Your task to perform on an android device: search for starred emails in the gmail app Image 0: 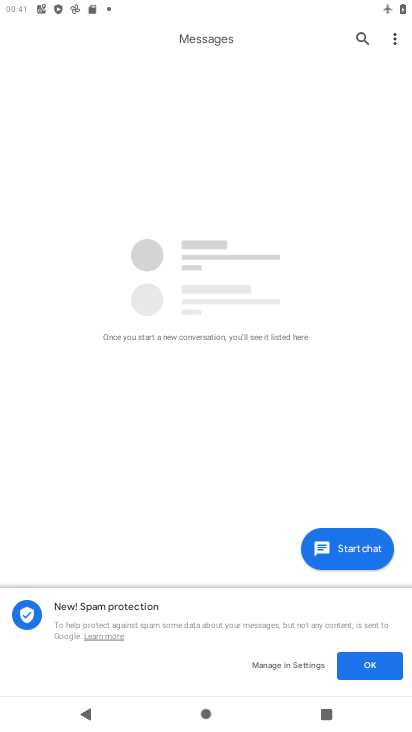
Step 0: click (226, 566)
Your task to perform on an android device: search for starred emails in the gmail app Image 1: 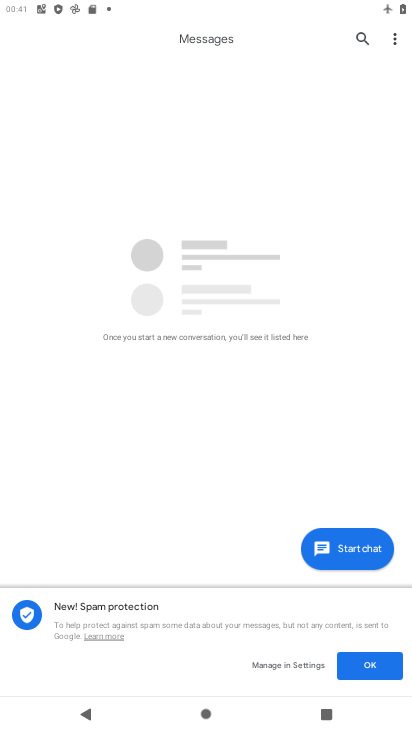
Step 1: press home button
Your task to perform on an android device: search for starred emails in the gmail app Image 2: 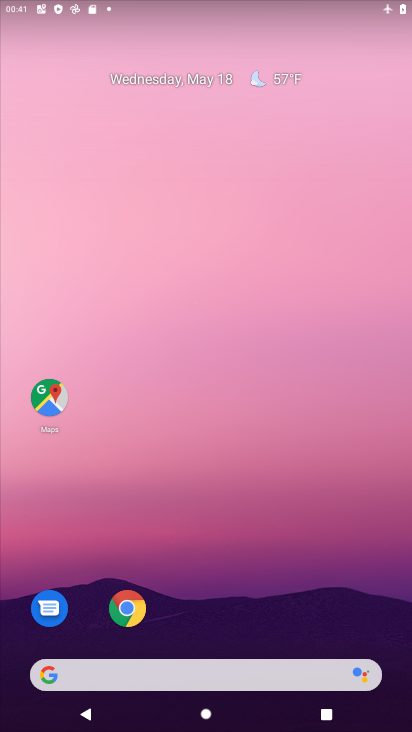
Step 2: drag from (251, 542) to (141, 134)
Your task to perform on an android device: search for starred emails in the gmail app Image 3: 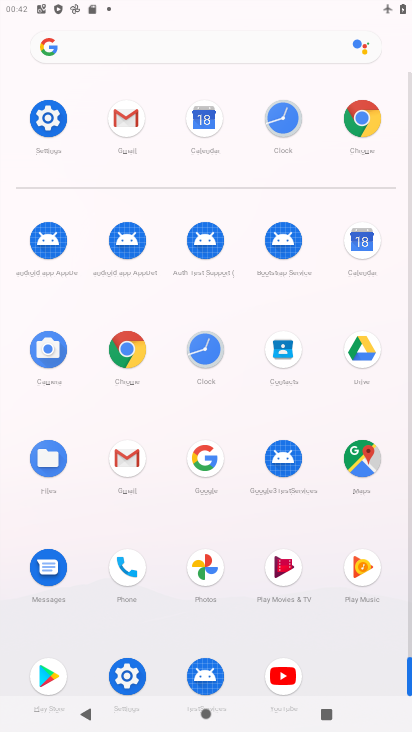
Step 3: click (119, 452)
Your task to perform on an android device: search for starred emails in the gmail app Image 4: 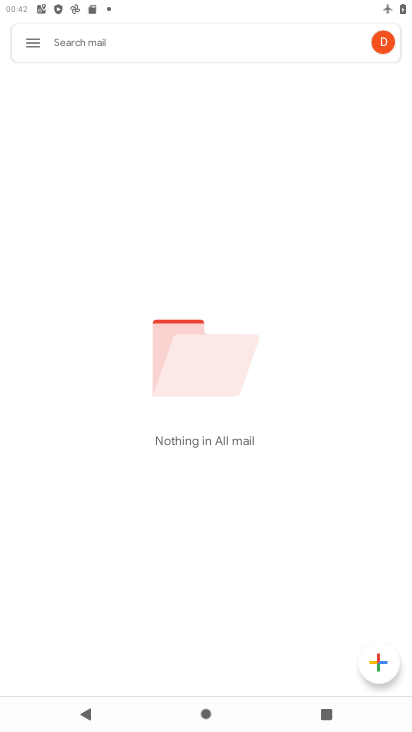
Step 4: click (32, 49)
Your task to perform on an android device: search for starred emails in the gmail app Image 5: 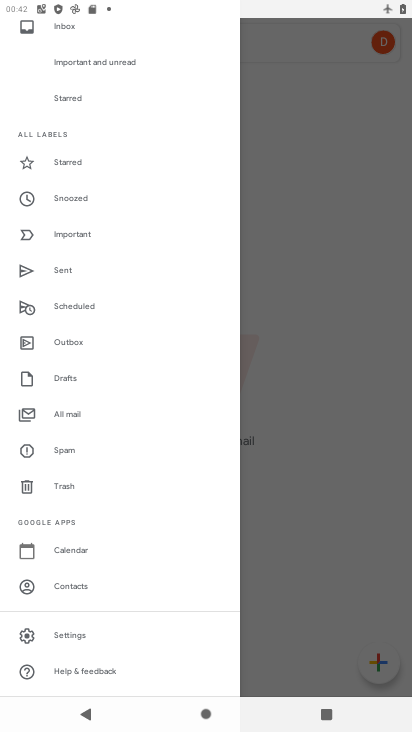
Step 5: click (101, 274)
Your task to perform on an android device: search for starred emails in the gmail app Image 6: 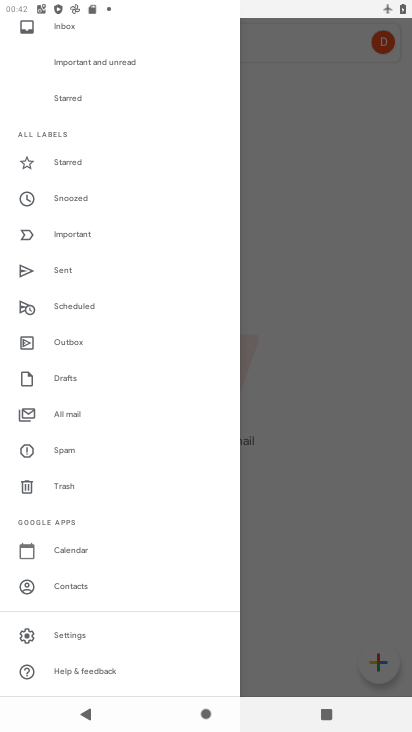
Step 6: click (62, 161)
Your task to perform on an android device: search for starred emails in the gmail app Image 7: 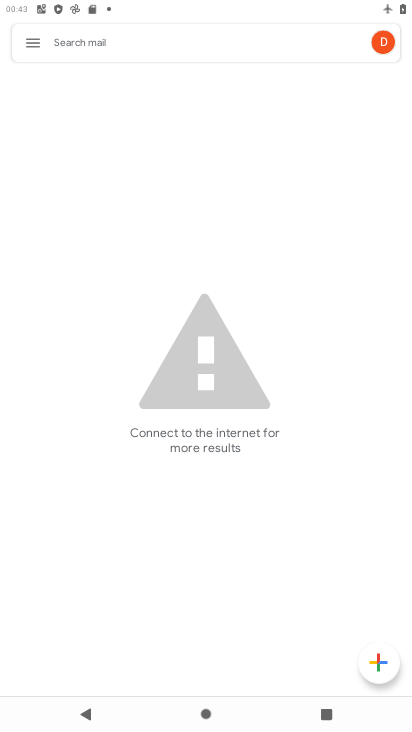
Step 7: click (30, 40)
Your task to perform on an android device: search for starred emails in the gmail app Image 8: 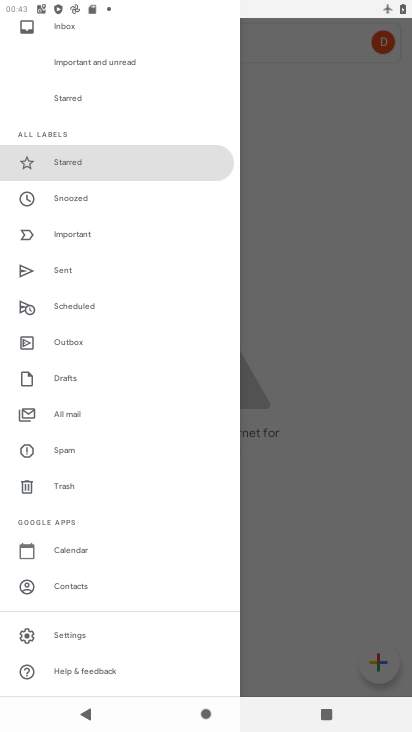
Step 8: click (71, 160)
Your task to perform on an android device: search for starred emails in the gmail app Image 9: 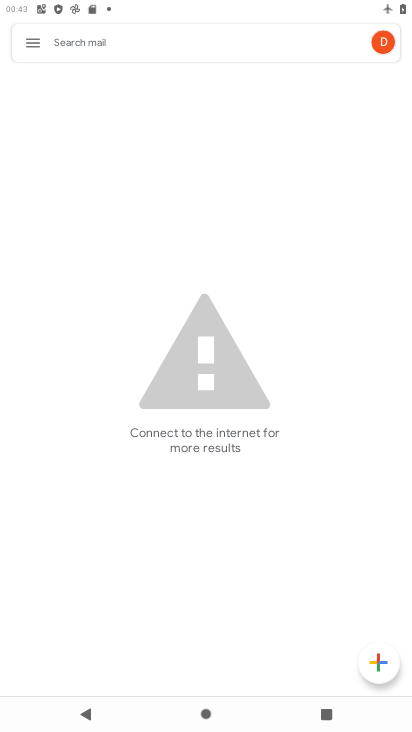
Step 9: task complete